Your task to perform on an android device: check storage Image 0: 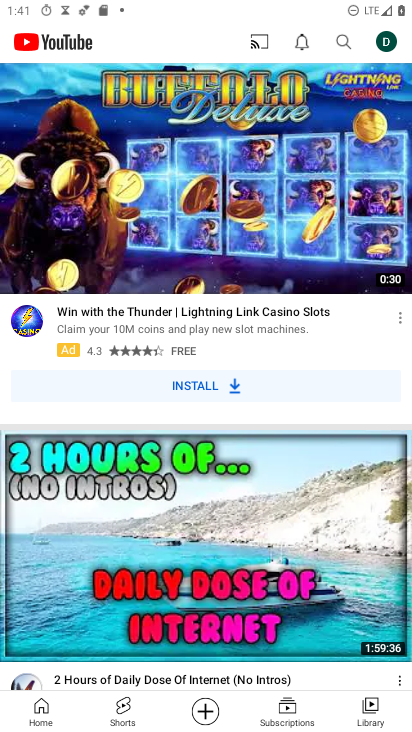
Step 0: press home button
Your task to perform on an android device: check storage Image 1: 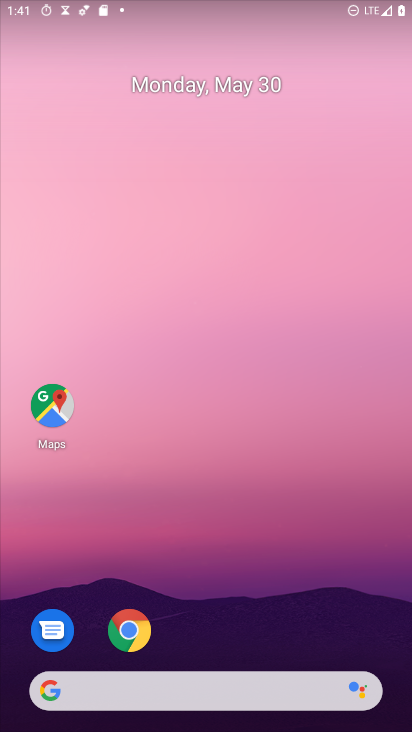
Step 1: drag from (264, 717) to (235, 44)
Your task to perform on an android device: check storage Image 2: 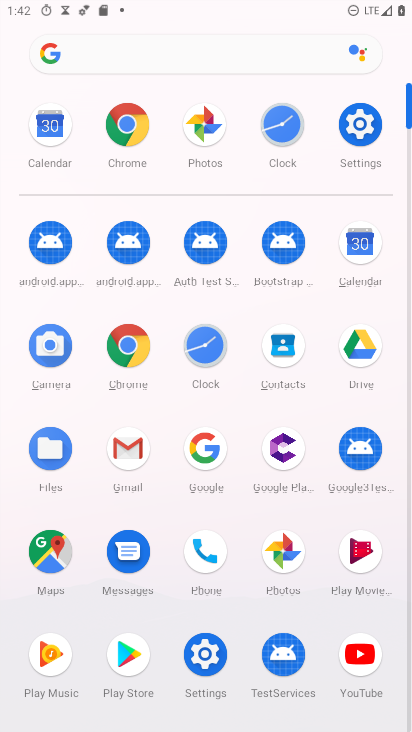
Step 2: click (229, 656)
Your task to perform on an android device: check storage Image 3: 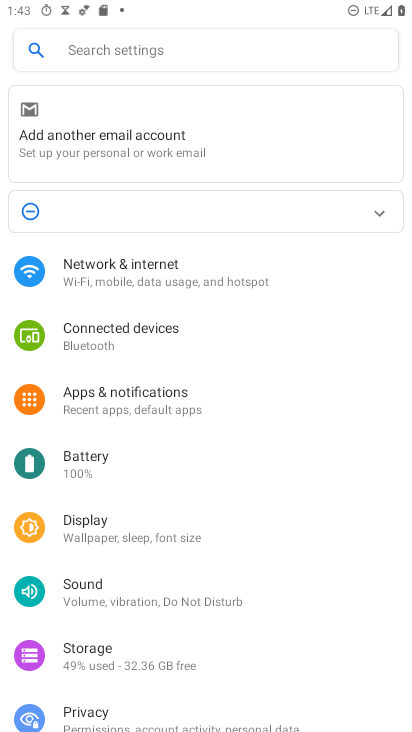
Step 3: click (124, 60)
Your task to perform on an android device: check storage Image 4: 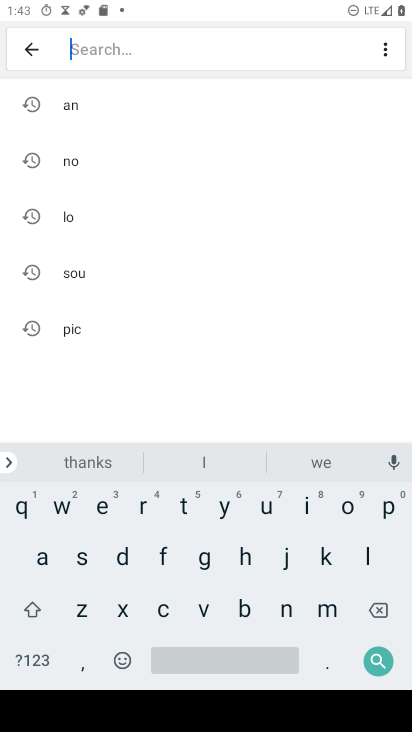
Step 4: click (78, 559)
Your task to perform on an android device: check storage Image 5: 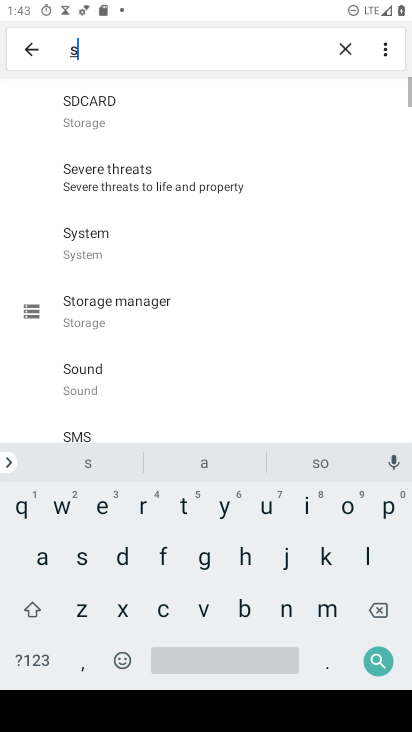
Step 5: click (182, 507)
Your task to perform on an android device: check storage Image 6: 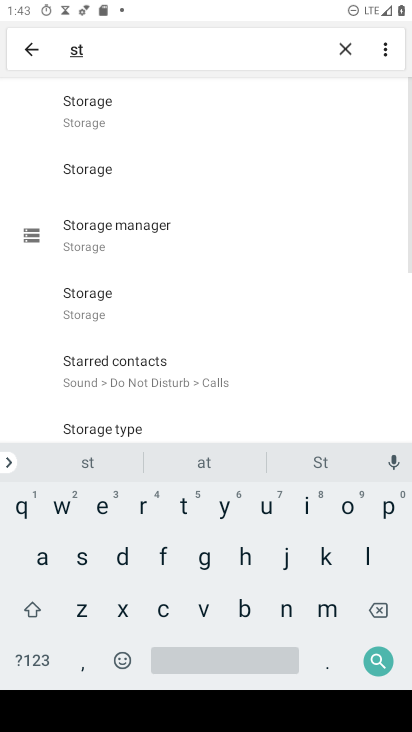
Step 6: click (159, 133)
Your task to perform on an android device: check storage Image 7: 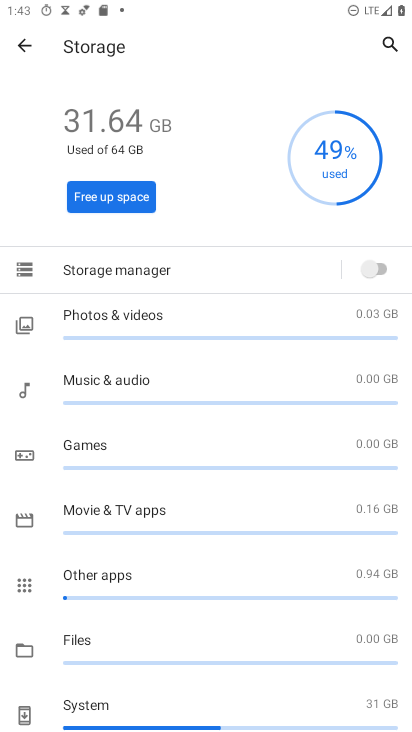
Step 7: task complete